Your task to perform on an android device: What's on my calendar tomorrow? Image 0: 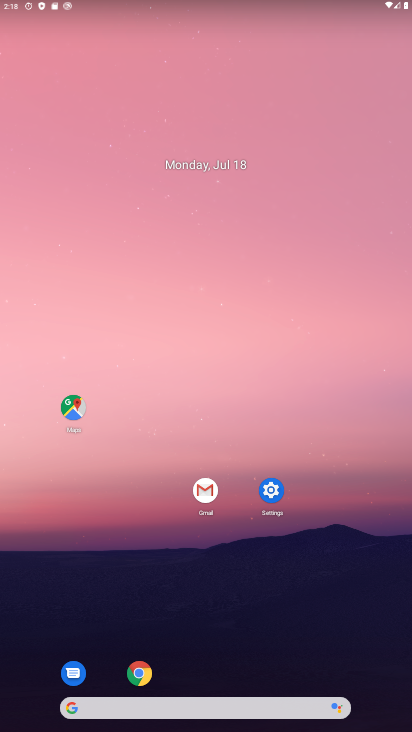
Step 0: drag from (240, 703) to (250, 62)
Your task to perform on an android device: What's on my calendar tomorrow? Image 1: 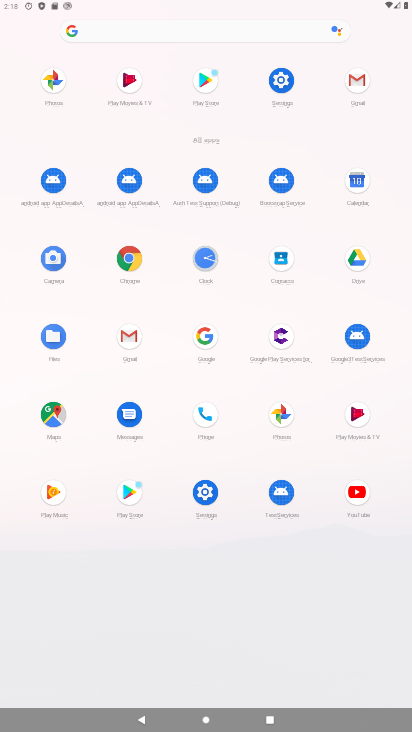
Step 1: click (362, 180)
Your task to perform on an android device: What's on my calendar tomorrow? Image 2: 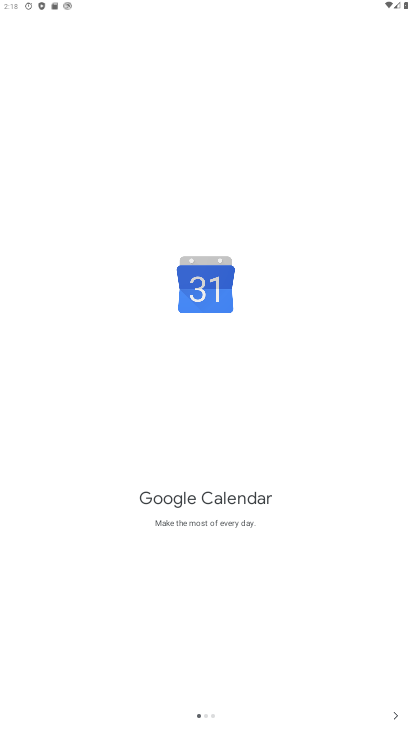
Step 2: click (382, 716)
Your task to perform on an android device: What's on my calendar tomorrow? Image 3: 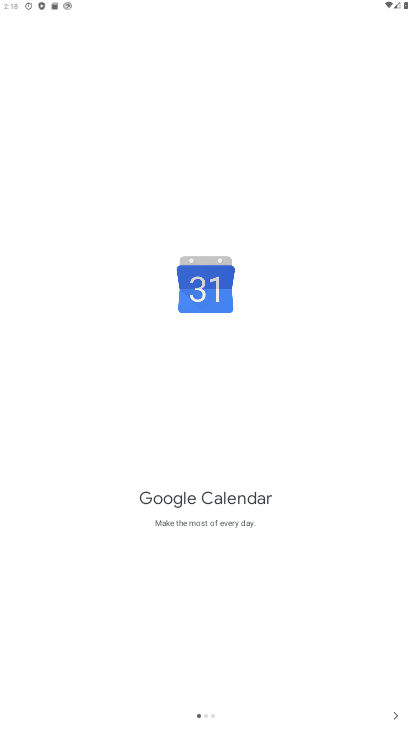
Step 3: click (381, 716)
Your task to perform on an android device: What's on my calendar tomorrow? Image 4: 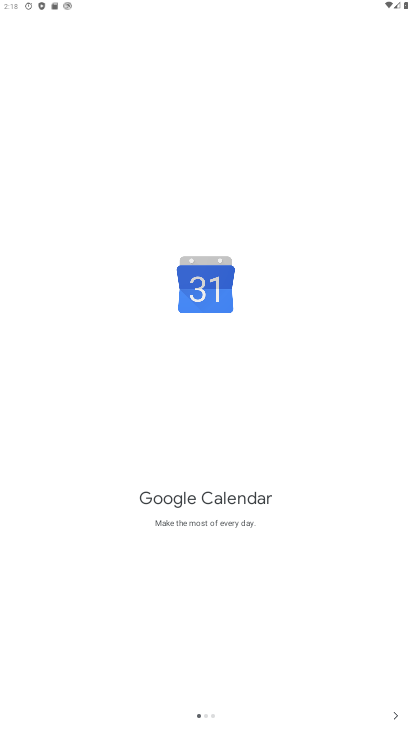
Step 4: click (386, 715)
Your task to perform on an android device: What's on my calendar tomorrow? Image 5: 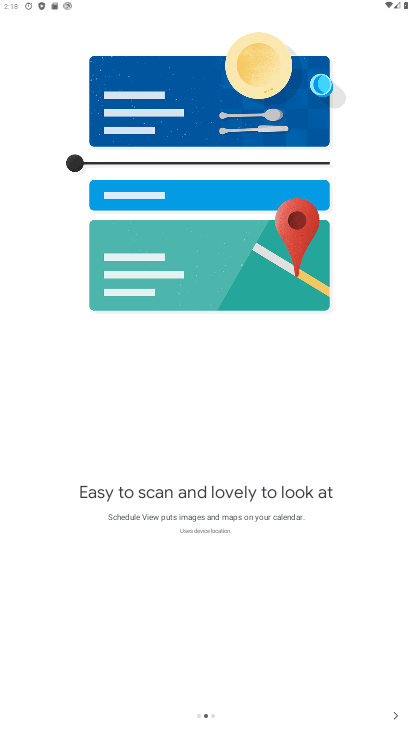
Step 5: click (380, 719)
Your task to perform on an android device: What's on my calendar tomorrow? Image 6: 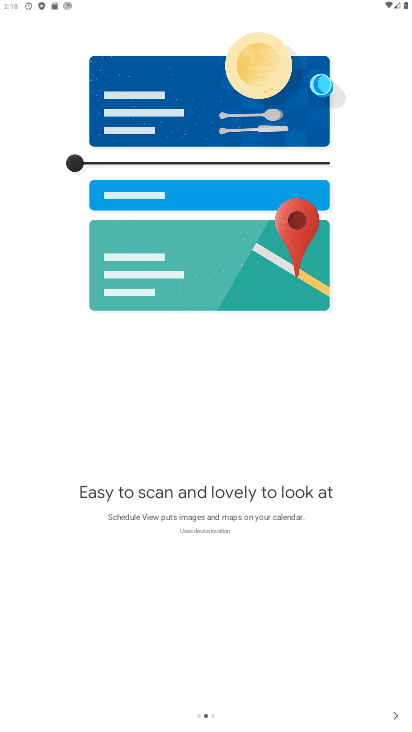
Step 6: click (396, 718)
Your task to perform on an android device: What's on my calendar tomorrow? Image 7: 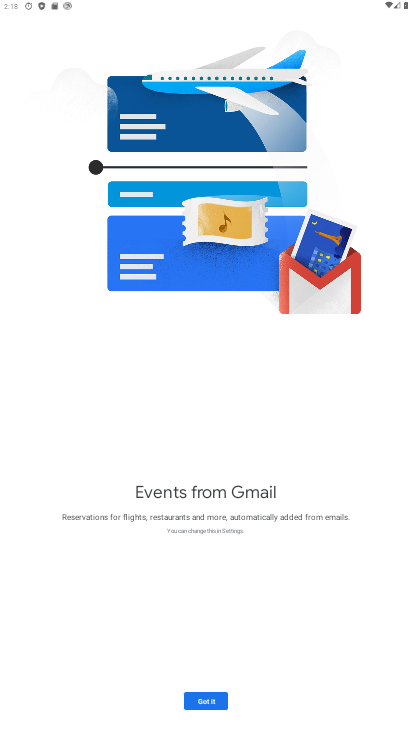
Step 7: click (213, 690)
Your task to perform on an android device: What's on my calendar tomorrow? Image 8: 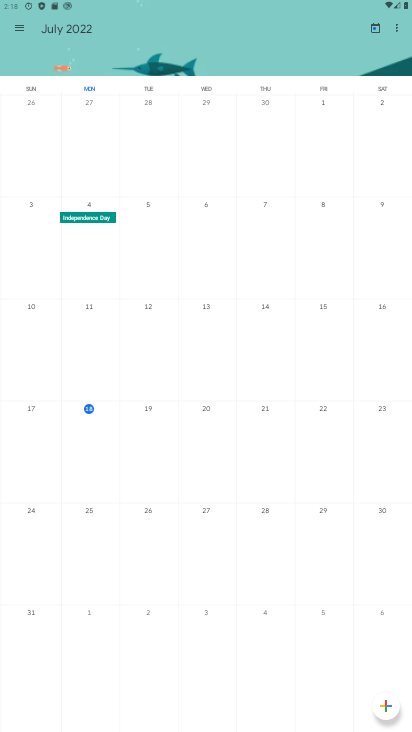
Step 8: click (145, 407)
Your task to perform on an android device: What's on my calendar tomorrow? Image 9: 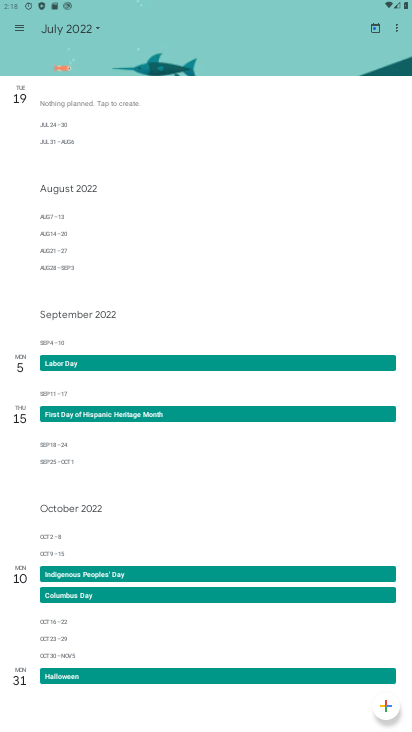
Step 9: task complete